Your task to perform on an android device: allow notifications from all sites in the chrome app Image 0: 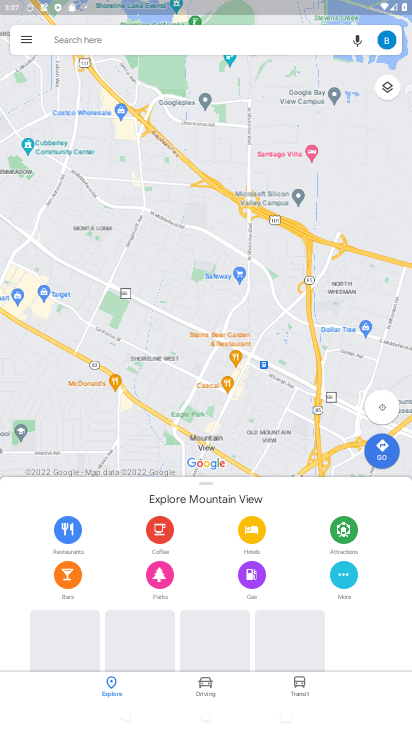
Step 0: press home button
Your task to perform on an android device: allow notifications from all sites in the chrome app Image 1: 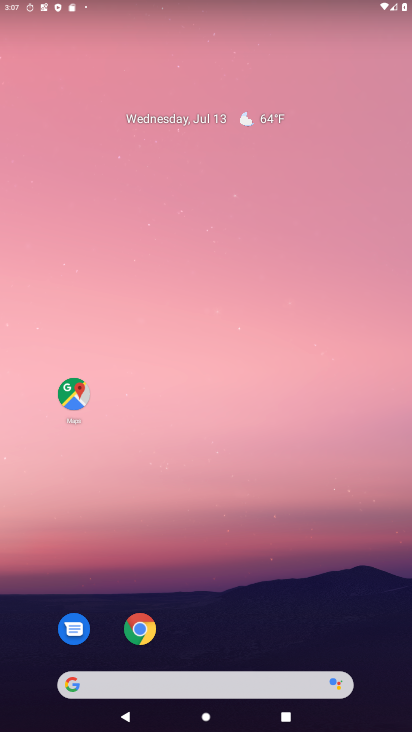
Step 1: drag from (338, 656) to (353, 2)
Your task to perform on an android device: allow notifications from all sites in the chrome app Image 2: 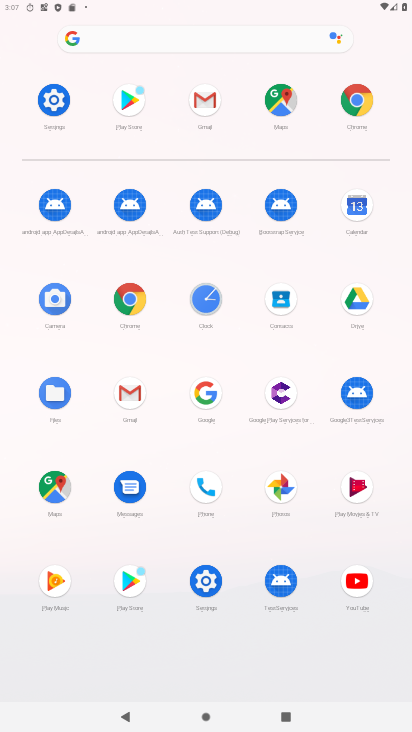
Step 2: click (126, 296)
Your task to perform on an android device: allow notifications from all sites in the chrome app Image 3: 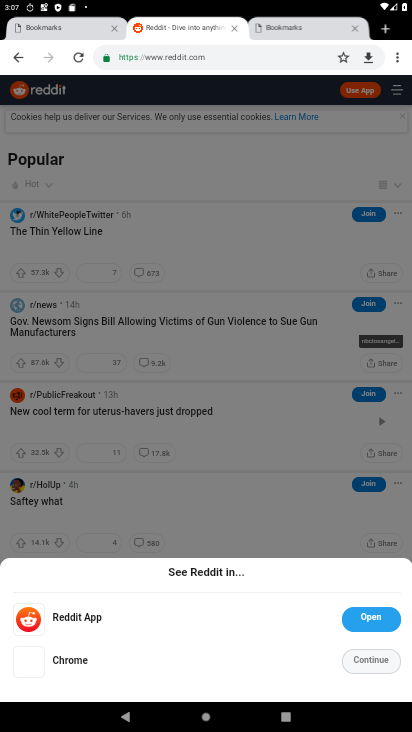
Step 3: drag from (395, 54) to (294, 382)
Your task to perform on an android device: allow notifications from all sites in the chrome app Image 4: 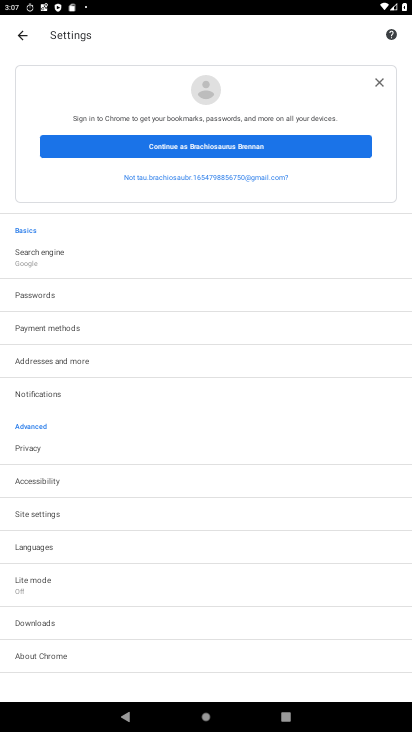
Step 4: click (57, 519)
Your task to perform on an android device: allow notifications from all sites in the chrome app Image 5: 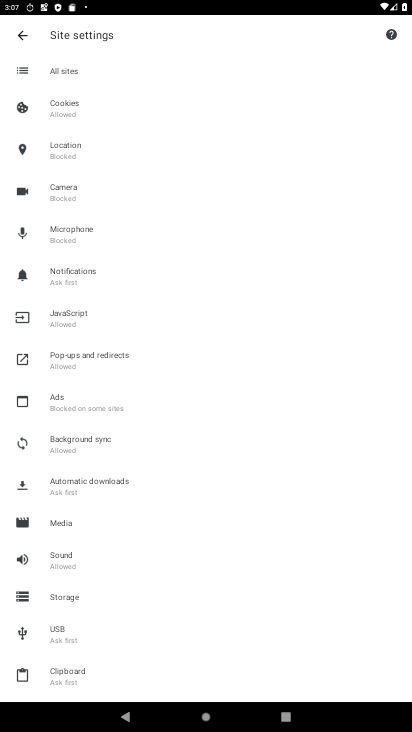
Step 5: click (85, 272)
Your task to perform on an android device: allow notifications from all sites in the chrome app Image 6: 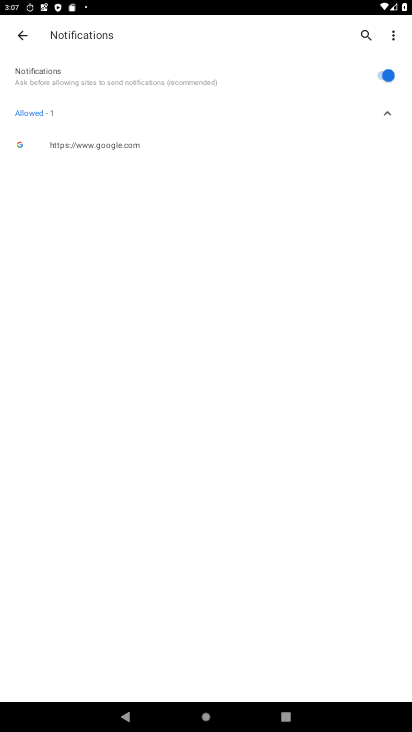
Step 6: click (109, 143)
Your task to perform on an android device: allow notifications from all sites in the chrome app Image 7: 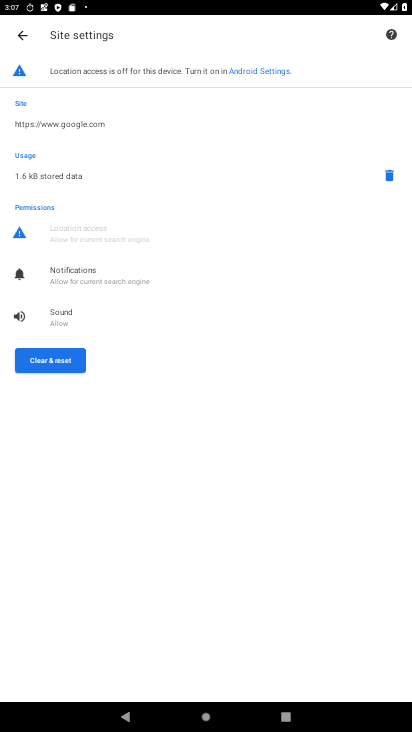
Step 7: task complete